Your task to perform on an android device: Search for seafood restaurants on Google Maps Image 0: 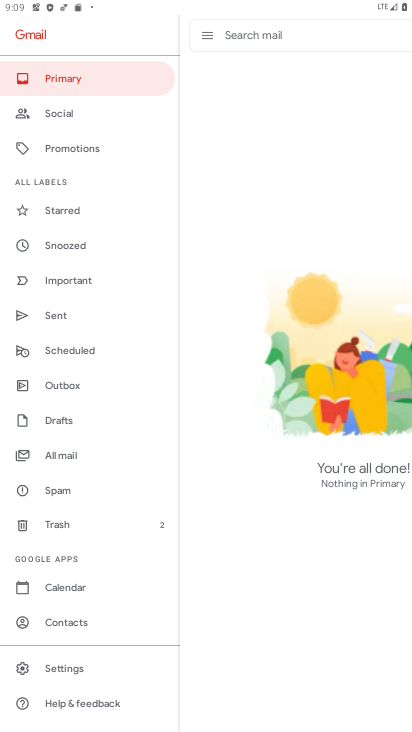
Step 0: press home button
Your task to perform on an android device: Search for seafood restaurants on Google Maps Image 1: 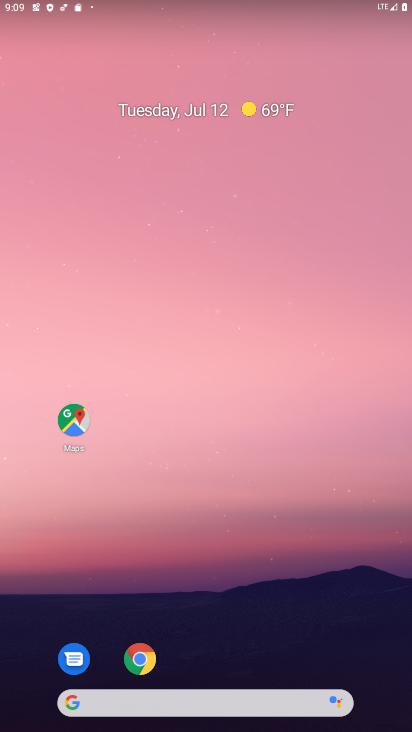
Step 1: drag from (214, 710) to (214, 176)
Your task to perform on an android device: Search for seafood restaurants on Google Maps Image 2: 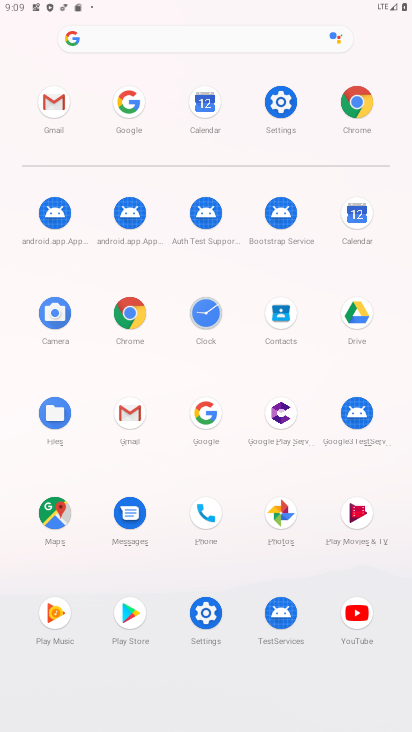
Step 2: click (53, 513)
Your task to perform on an android device: Search for seafood restaurants on Google Maps Image 3: 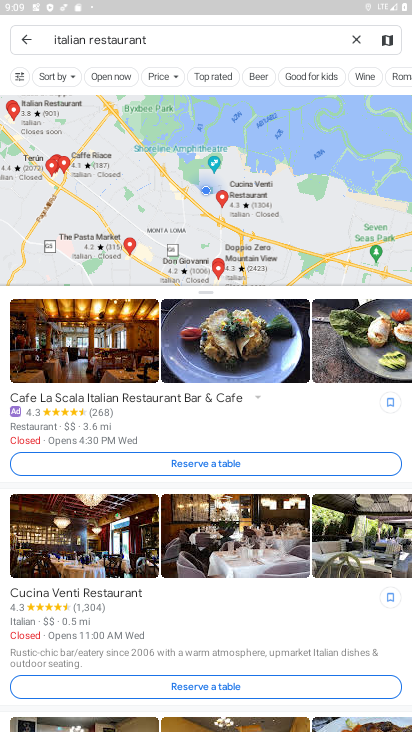
Step 3: click (356, 34)
Your task to perform on an android device: Search for seafood restaurants on Google Maps Image 4: 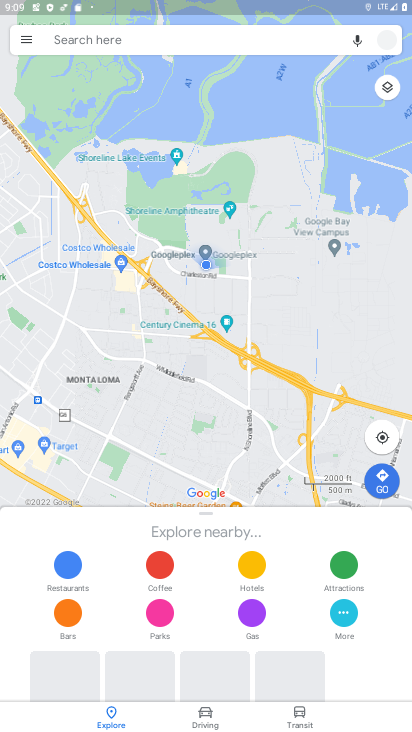
Step 4: click (163, 42)
Your task to perform on an android device: Search for seafood restaurants on Google Maps Image 5: 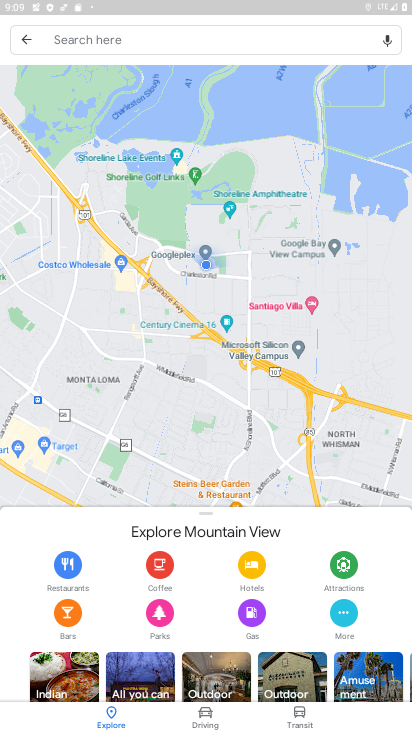
Step 5: click (163, 42)
Your task to perform on an android device: Search for seafood restaurants on Google Maps Image 6: 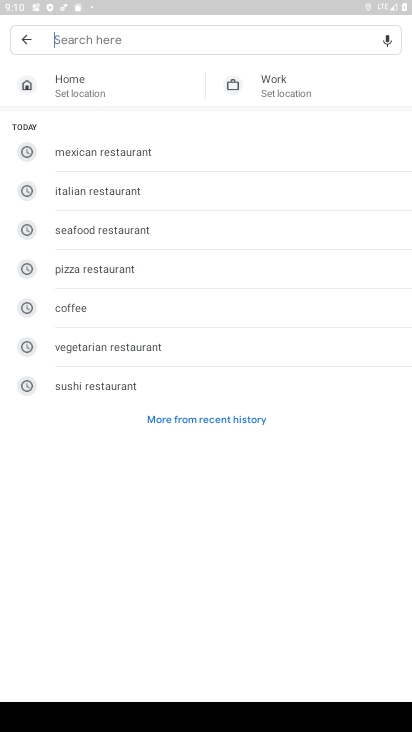
Step 6: type "seafood restaurants"
Your task to perform on an android device: Search for seafood restaurants on Google Maps Image 7: 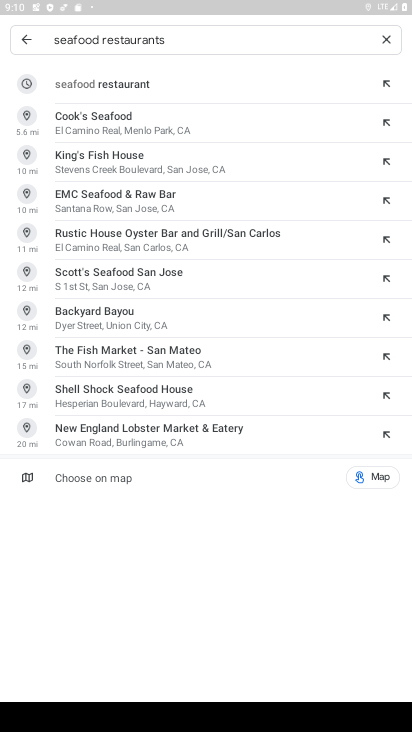
Step 7: click (103, 81)
Your task to perform on an android device: Search for seafood restaurants on Google Maps Image 8: 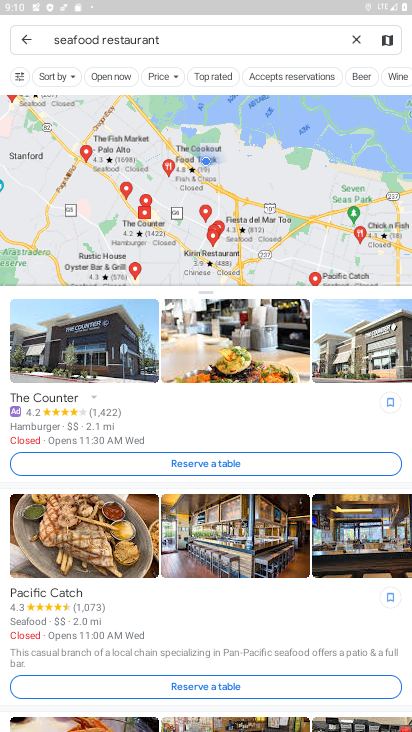
Step 8: task complete